Your task to perform on an android device: delete a single message in the gmail app Image 0: 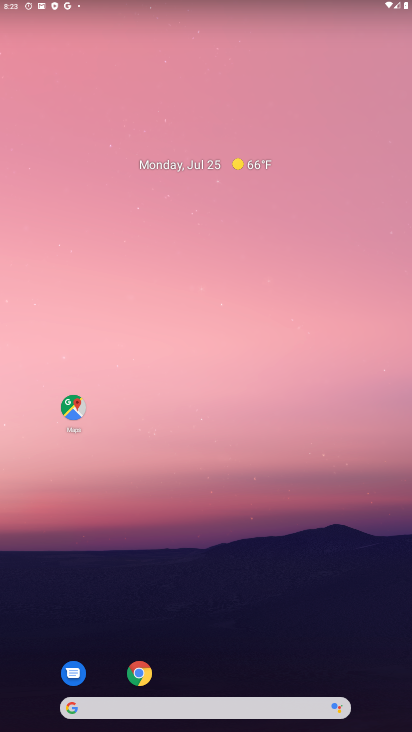
Step 0: drag from (216, 194) to (388, 509)
Your task to perform on an android device: delete a single message in the gmail app Image 1: 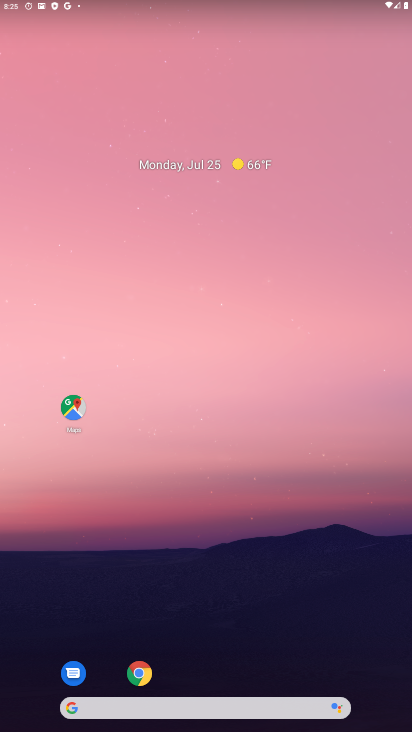
Step 1: drag from (239, 513) to (316, 173)
Your task to perform on an android device: delete a single message in the gmail app Image 2: 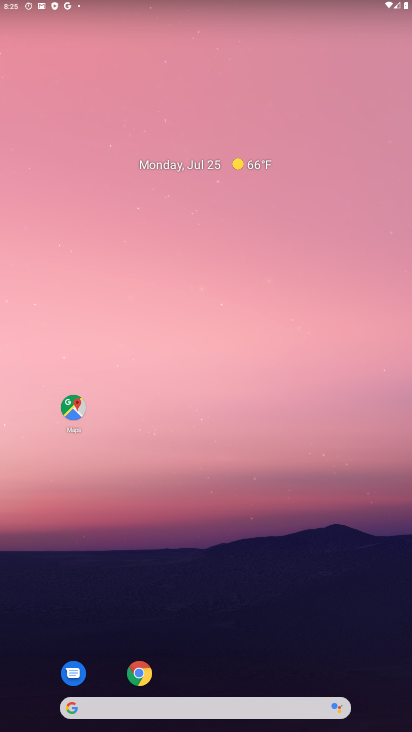
Step 2: drag from (207, 532) to (302, 99)
Your task to perform on an android device: delete a single message in the gmail app Image 3: 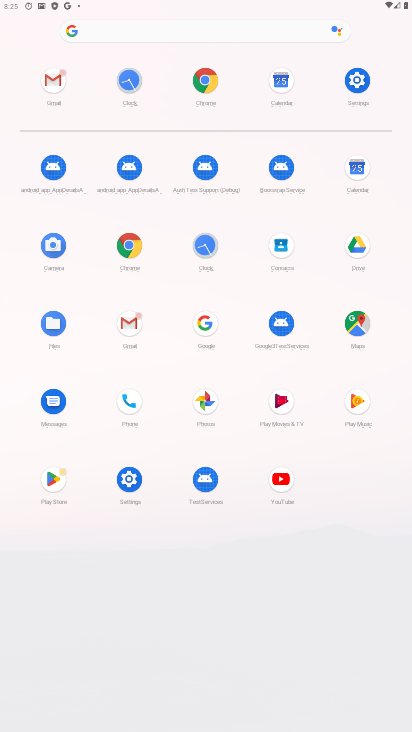
Step 3: drag from (261, 508) to (290, 220)
Your task to perform on an android device: delete a single message in the gmail app Image 4: 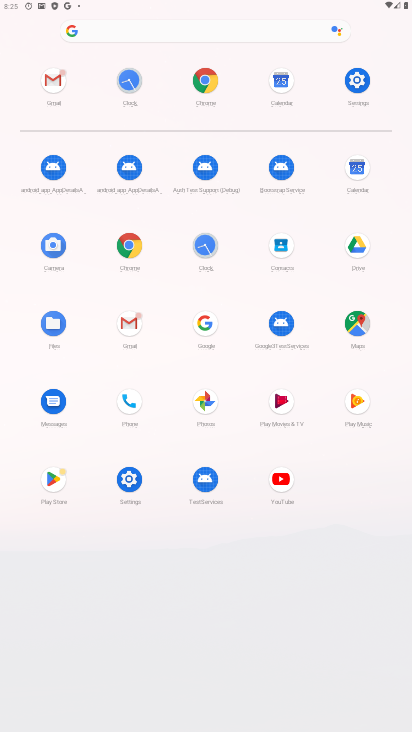
Step 4: click (131, 309)
Your task to perform on an android device: delete a single message in the gmail app Image 5: 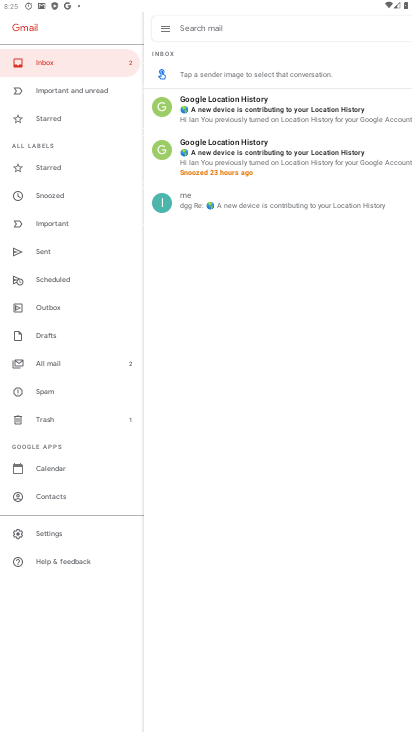
Step 5: click (266, 114)
Your task to perform on an android device: delete a single message in the gmail app Image 6: 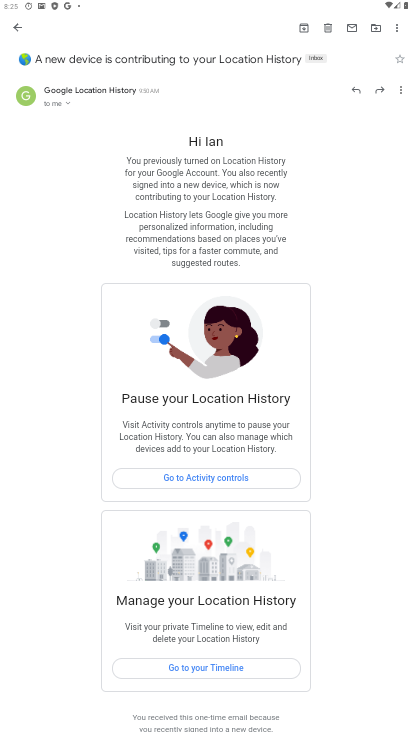
Step 6: click (328, 29)
Your task to perform on an android device: delete a single message in the gmail app Image 7: 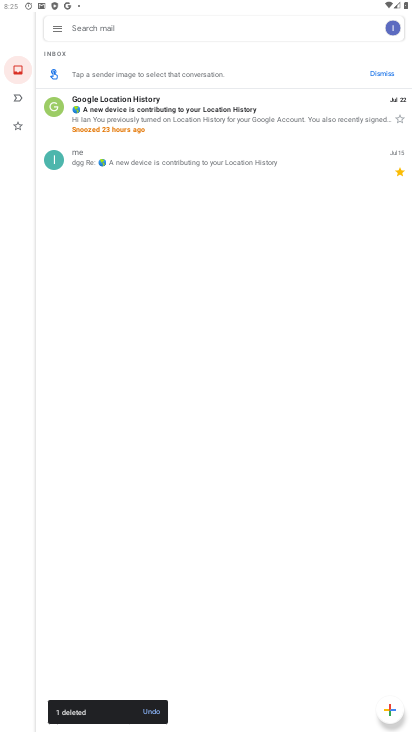
Step 7: task complete